Your task to perform on an android device: What is the news today? Image 0: 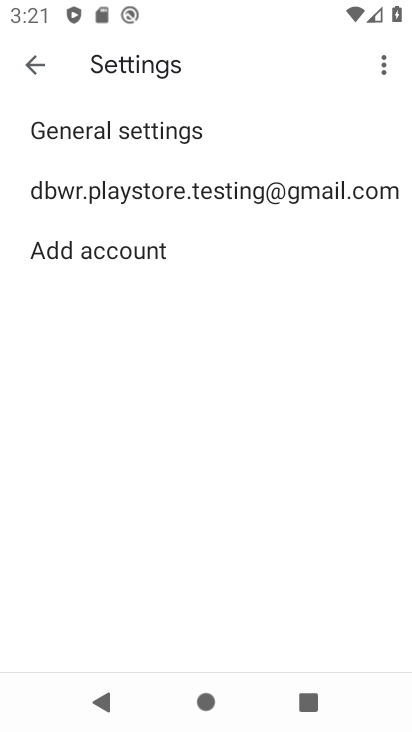
Step 0: press home button
Your task to perform on an android device: What is the news today? Image 1: 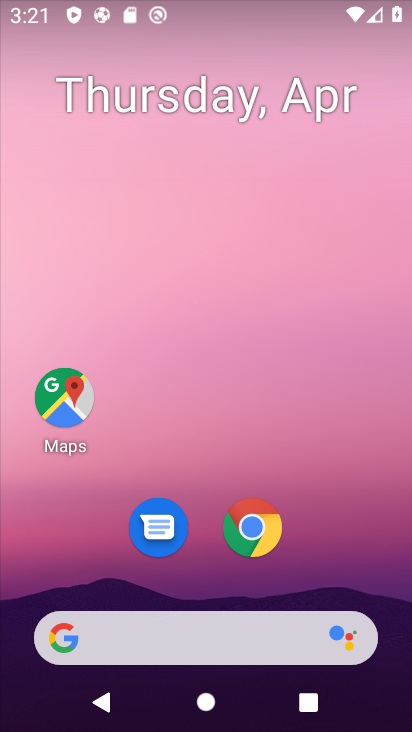
Step 1: drag from (366, 550) to (280, 107)
Your task to perform on an android device: What is the news today? Image 2: 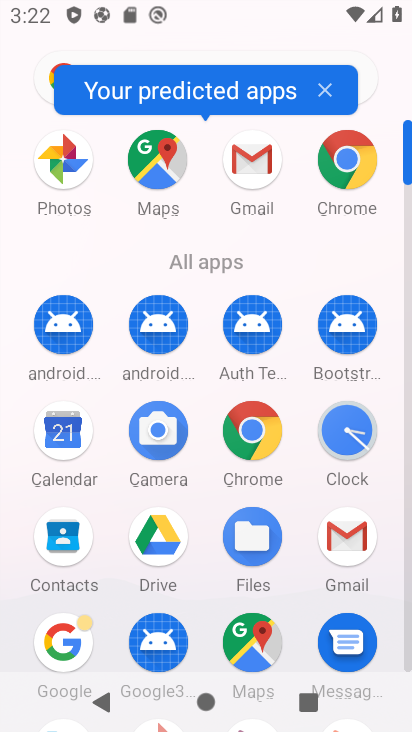
Step 2: click (360, 167)
Your task to perform on an android device: What is the news today? Image 3: 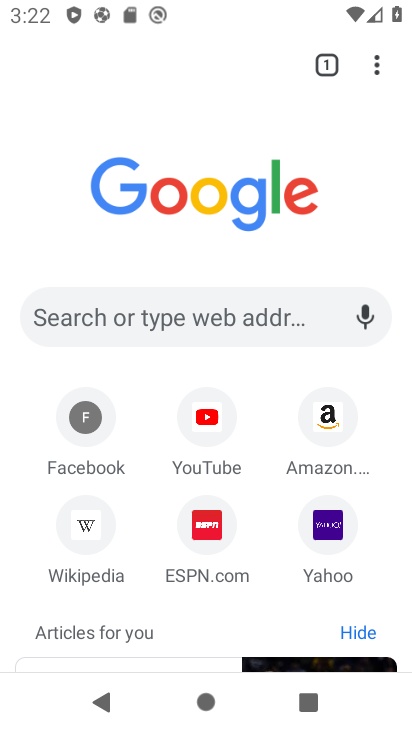
Step 3: click (264, 318)
Your task to perform on an android device: What is the news today? Image 4: 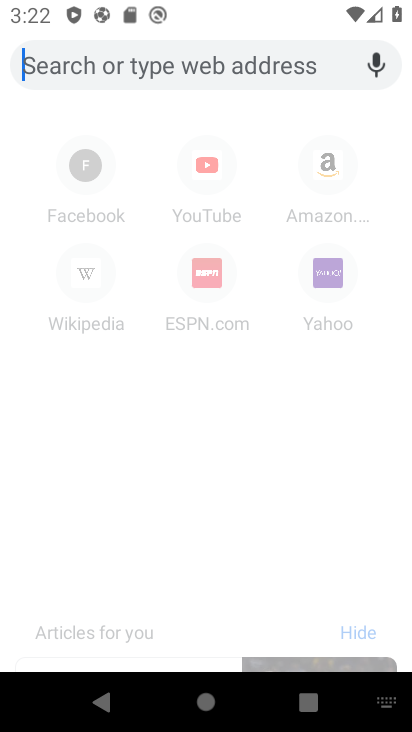
Step 4: type "What is the news today?"
Your task to perform on an android device: What is the news today? Image 5: 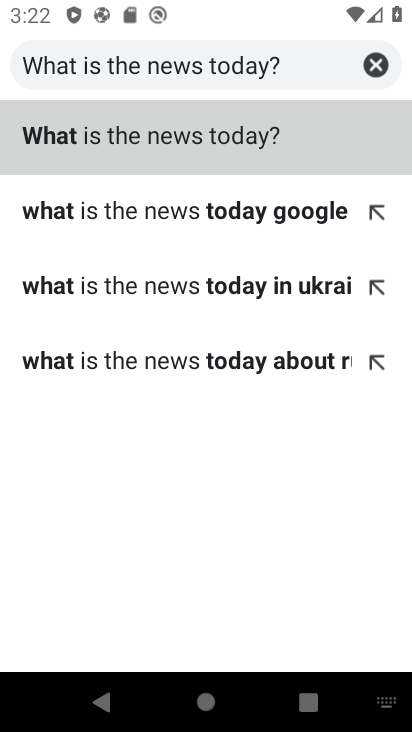
Step 5: click (80, 139)
Your task to perform on an android device: What is the news today? Image 6: 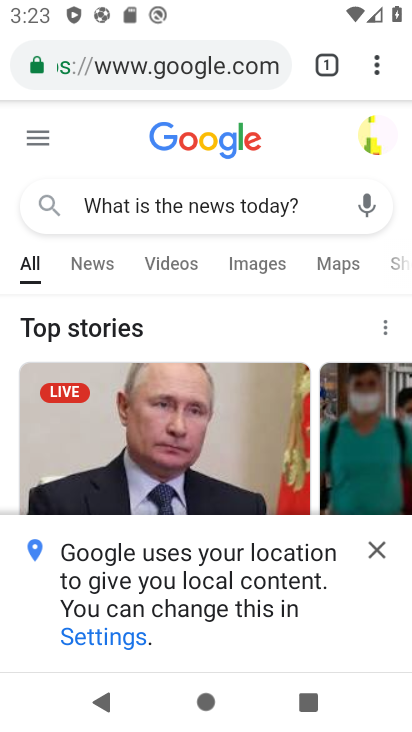
Step 6: task complete